Your task to perform on an android device: find which apps use the phone's location Image 0: 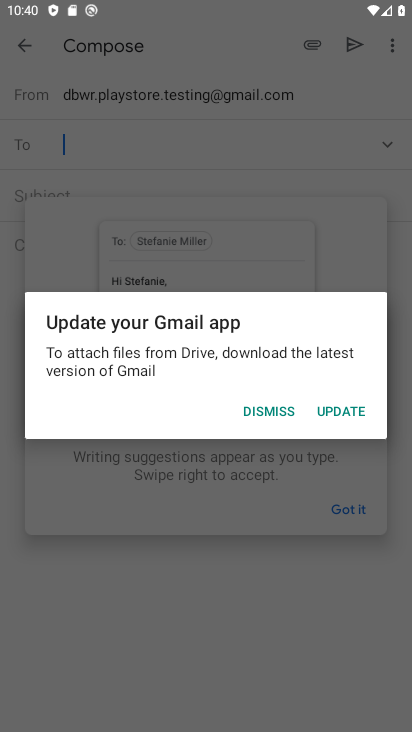
Step 0: press home button
Your task to perform on an android device: find which apps use the phone's location Image 1: 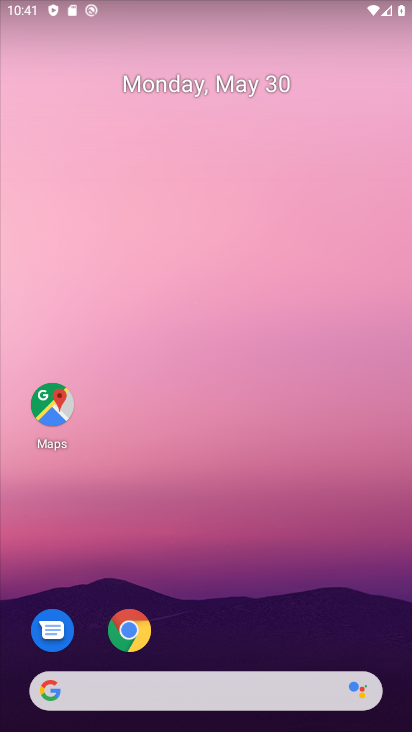
Step 1: drag from (241, 327) to (271, 270)
Your task to perform on an android device: find which apps use the phone's location Image 2: 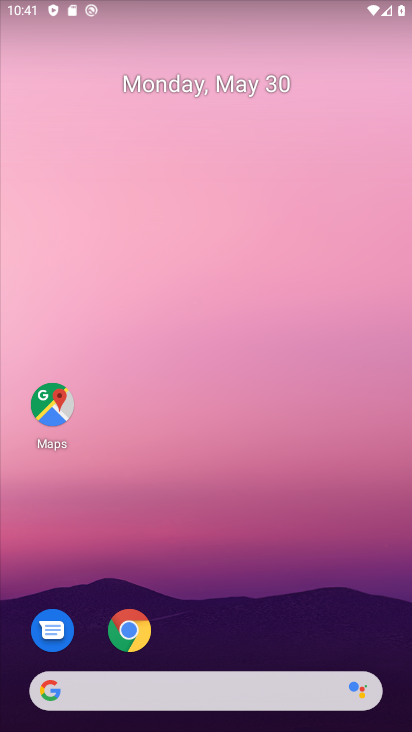
Step 2: drag from (250, 645) to (328, 148)
Your task to perform on an android device: find which apps use the phone's location Image 3: 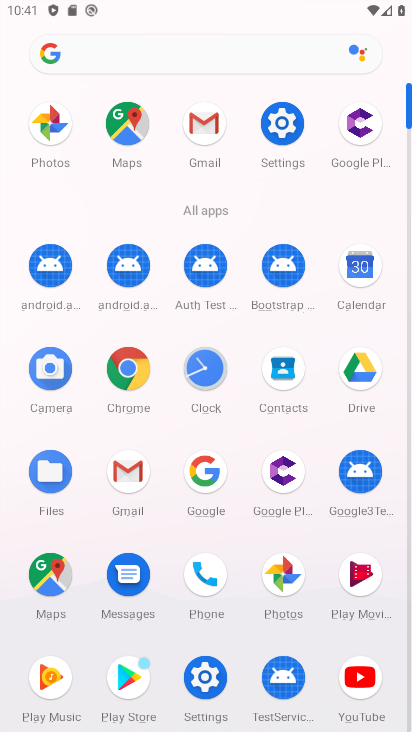
Step 3: click (283, 121)
Your task to perform on an android device: find which apps use the phone's location Image 4: 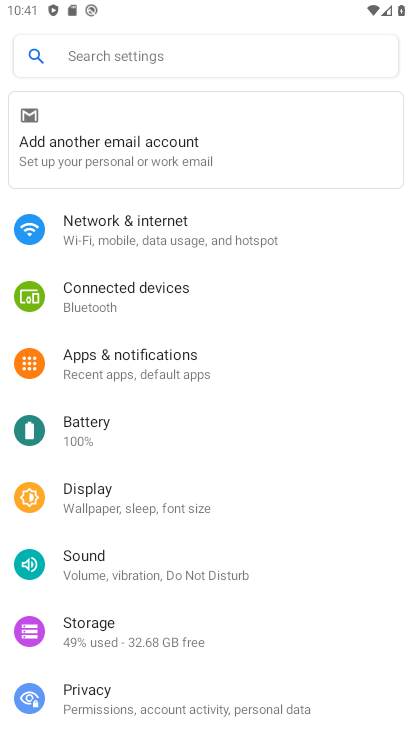
Step 4: drag from (167, 663) to (298, 272)
Your task to perform on an android device: find which apps use the phone's location Image 5: 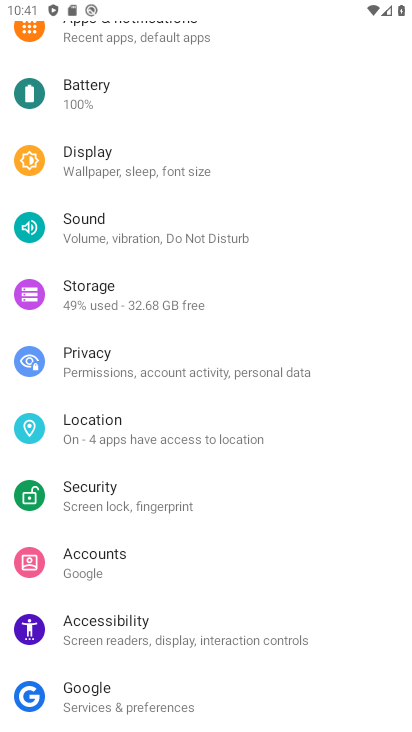
Step 5: click (140, 433)
Your task to perform on an android device: find which apps use the phone's location Image 6: 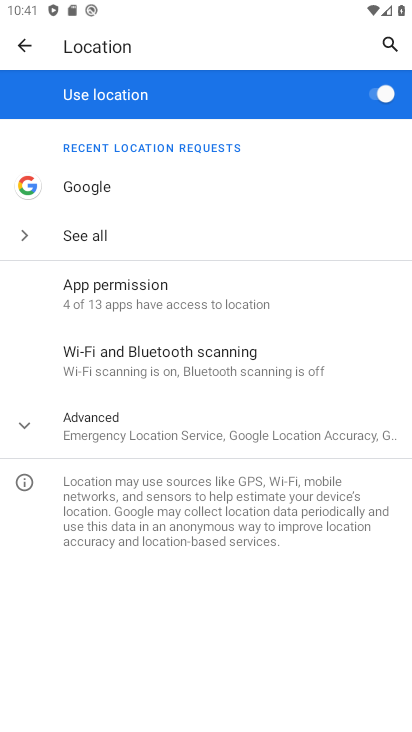
Step 6: click (87, 236)
Your task to perform on an android device: find which apps use the phone's location Image 7: 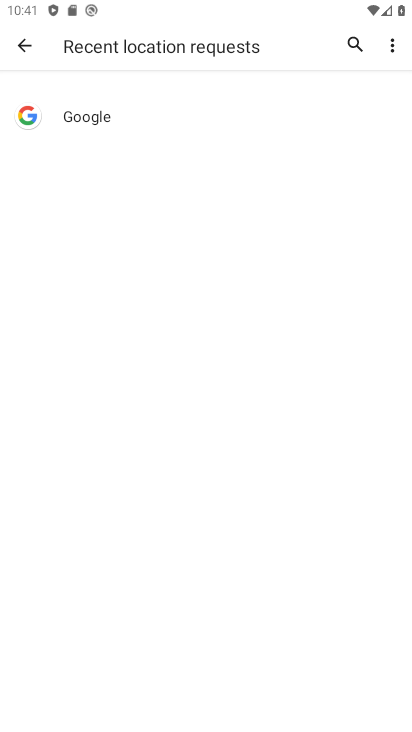
Step 7: task complete